Your task to perform on an android device: turn pop-ups off in chrome Image 0: 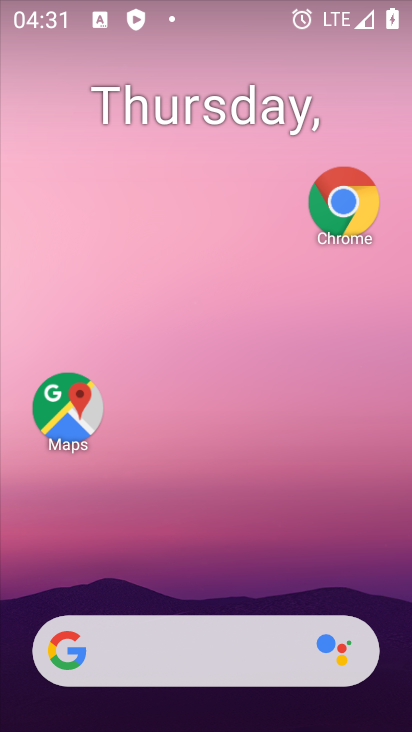
Step 0: drag from (312, 662) to (368, 45)
Your task to perform on an android device: turn pop-ups off in chrome Image 1: 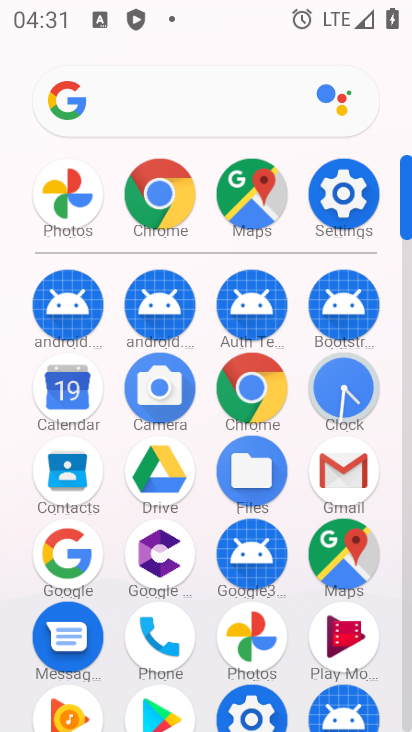
Step 1: click (270, 397)
Your task to perform on an android device: turn pop-ups off in chrome Image 2: 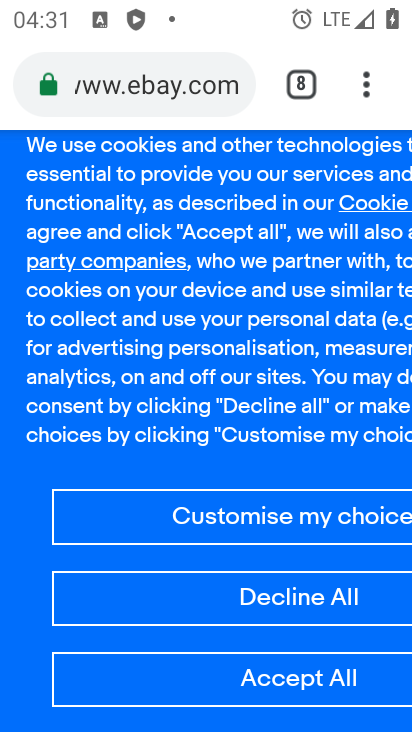
Step 2: drag from (355, 70) to (158, 602)
Your task to perform on an android device: turn pop-ups off in chrome Image 3: 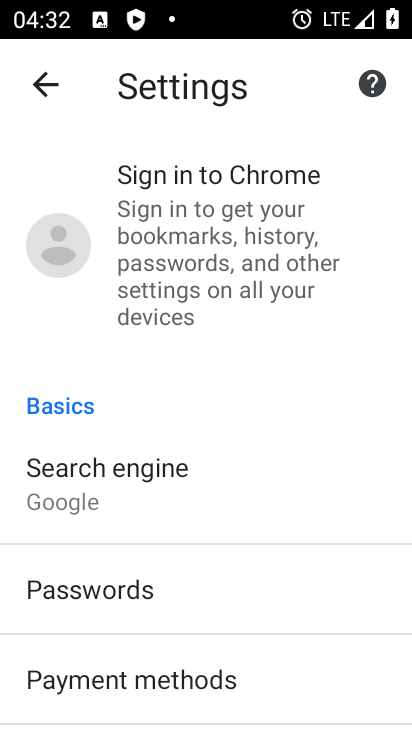
Step 3: drag from (233, 683) to (263, 160)
Your task to perform on an android device: turn pop-ups off in chrome Image 4: 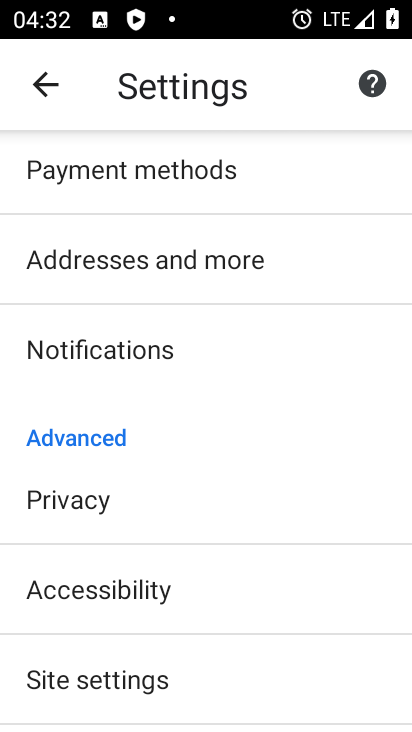
Step 4: drag from (259, 610) to (274, 236)
Your task to perform on an android device: turn pop-ups off in chrome Image 5: 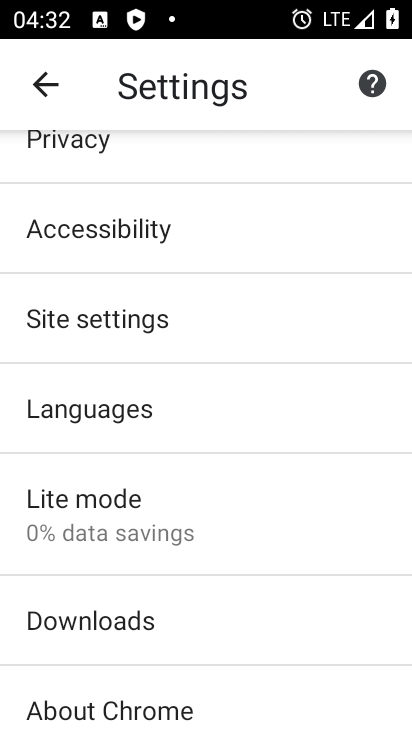
Step 5: drag from (199, 668) to (201, 119)
Your task to perform on an android device: turn pop-ups off in chrome Image 6: 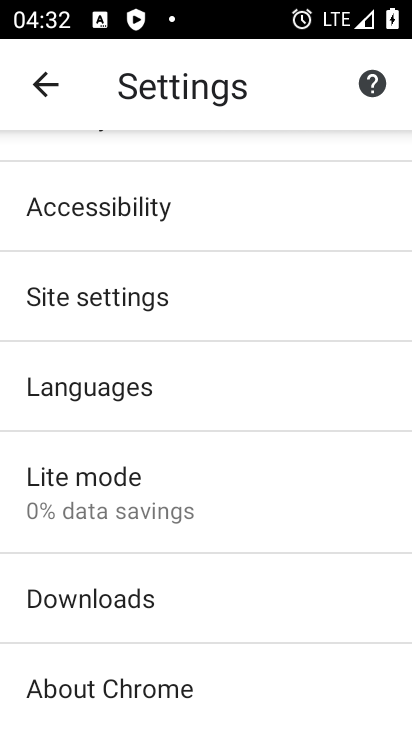
Step 6: click (118, 288)
Your task to perform on an android device: turn pop-ups off in chrome Image 7: 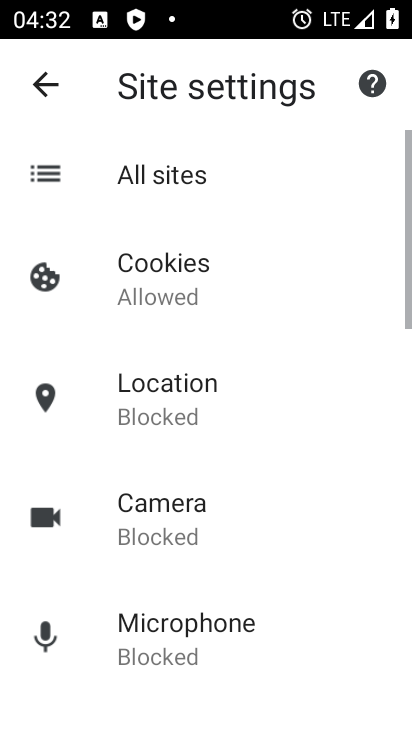
Step 7: drag from (256, 671) to (286, 58)
Your task to perform on an android device: turn pop-ups off in chrome Image 8: 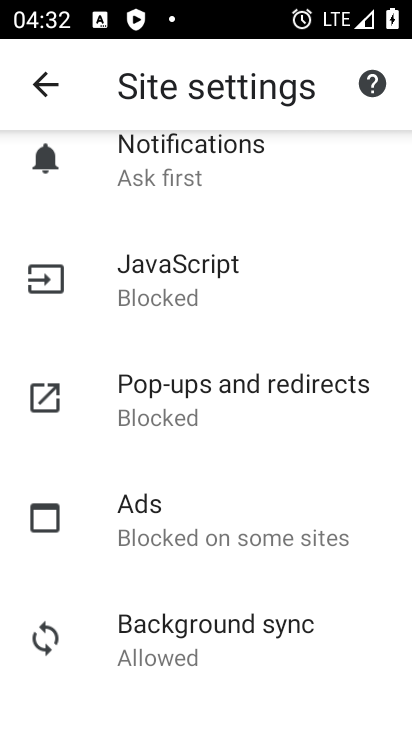
Step 8: click (278, 389)
Your task to perform on an android device: turn pop-ups off in chrome Image 9: 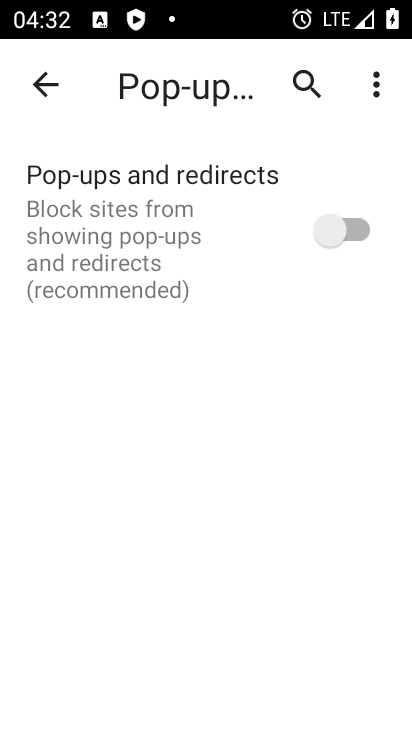
Step 9: task complete